Your task to perform on an android device: Go to battery settings Image 0: 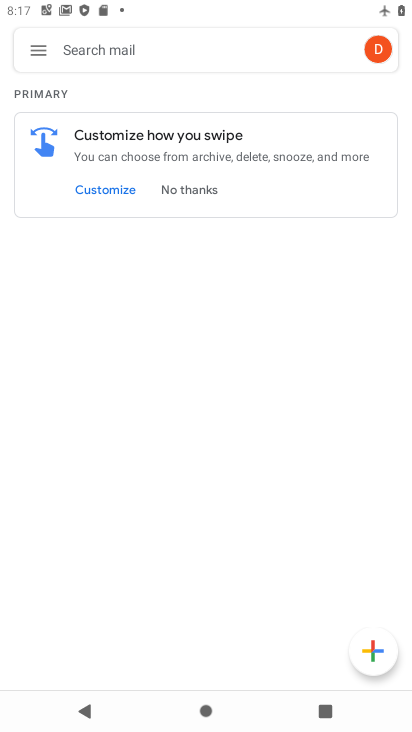
Step 0: press home button
Your task to perform on an android device: Go to battery settings Image 1: 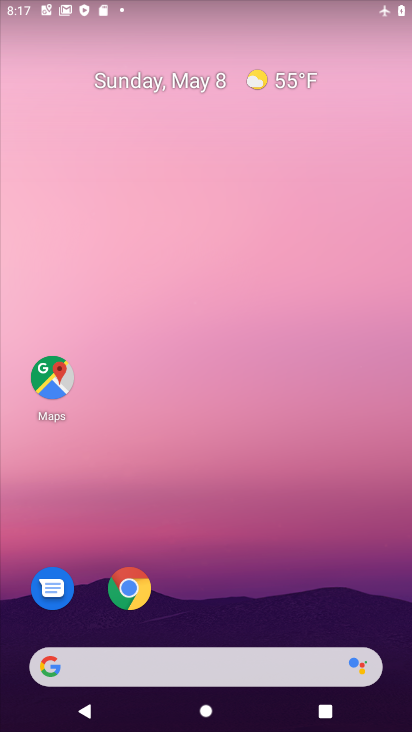
Step 1: drag from (320, 623) to (214, 50)
Your task to perform on an android device: Go to battery settings Image 2: 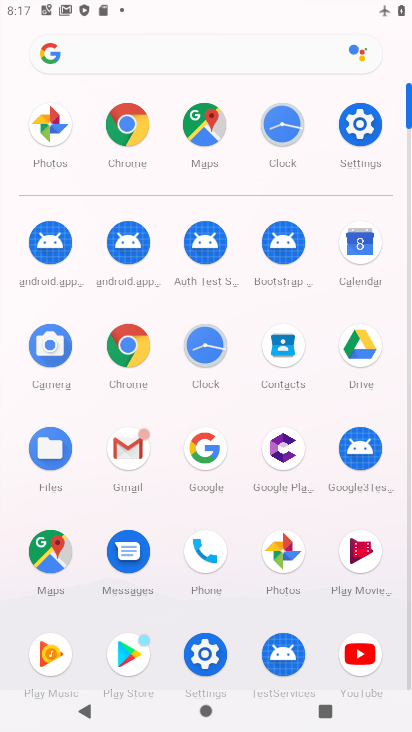
Step 2: click (213, 649)
Your task to perform on an android device: Go to battery settings Image 3: 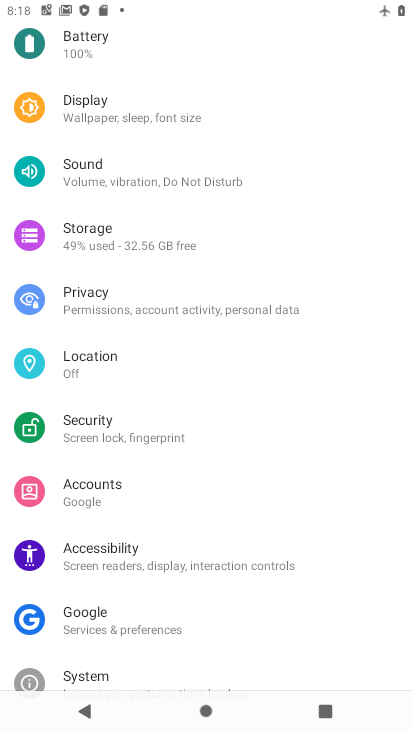
Step 3: click (109, 41)
Your task to perform on an android device: Go to battery settings Image 4: 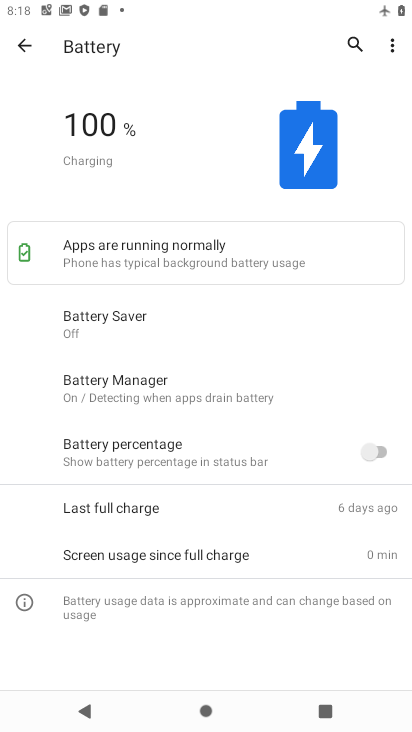
Step 4: task complete